Your task to perform on an android device: Go to wifi settings Image 0: 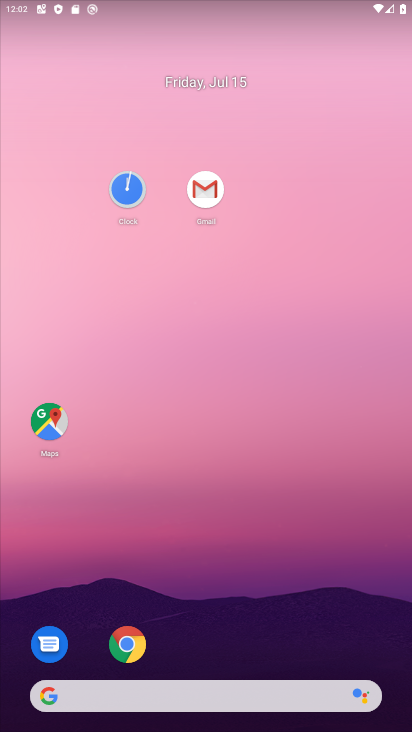
Step 0: drag from (288, 612) to (296, 215)
Your task to perform on an android device: Go to wifi settings Image 1: 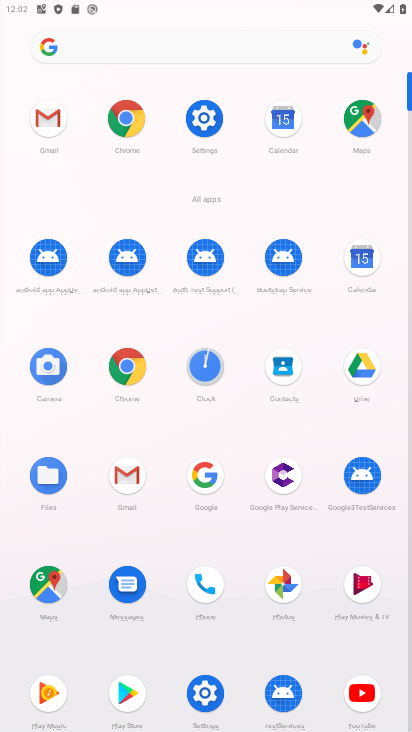
Step 1: click (209, 117)
Your task to perform on an android device: Go to wifi settings Image 2: 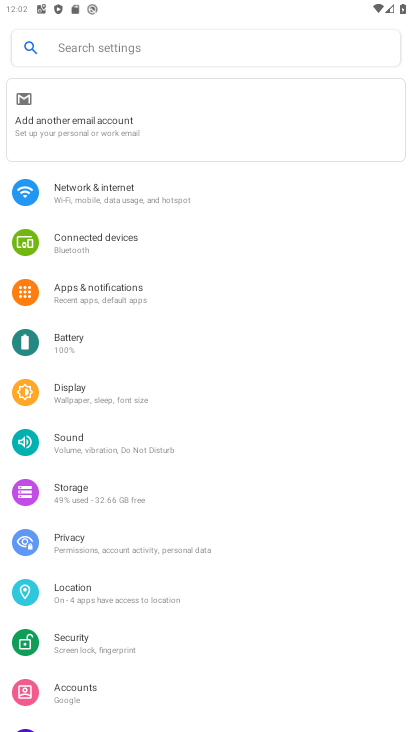
Step 2: click (165, 209)
Your task to perform on an android device: Go to wifi settings Image 3: 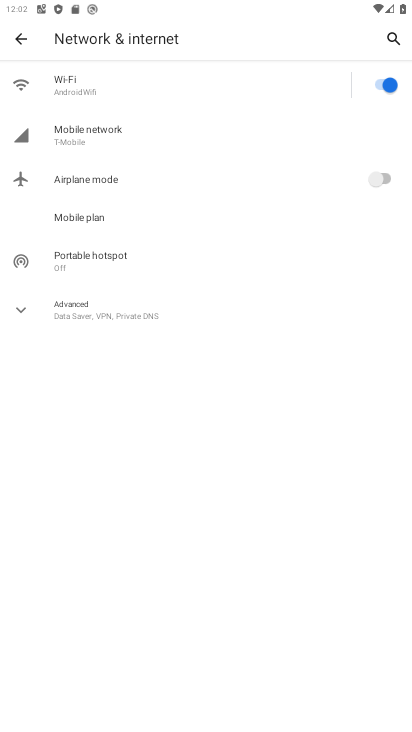
Step 3: click (153, 87)
Your task to perform on an android device: Go to wifi settings Image 4: 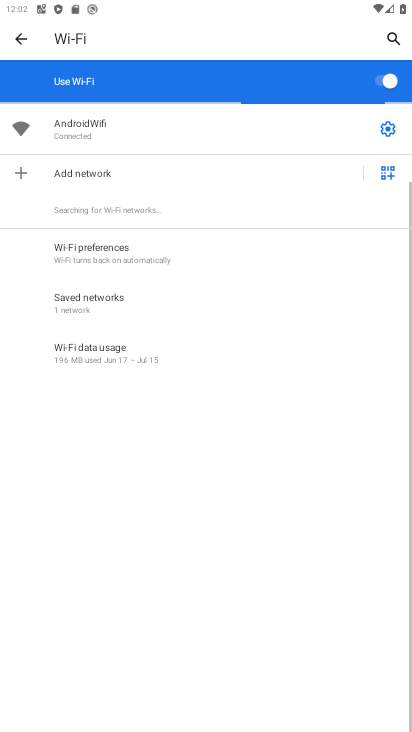
Step 4: click (388, 121)
Your task to perform on an android device: Go to wifi settings Image 5: 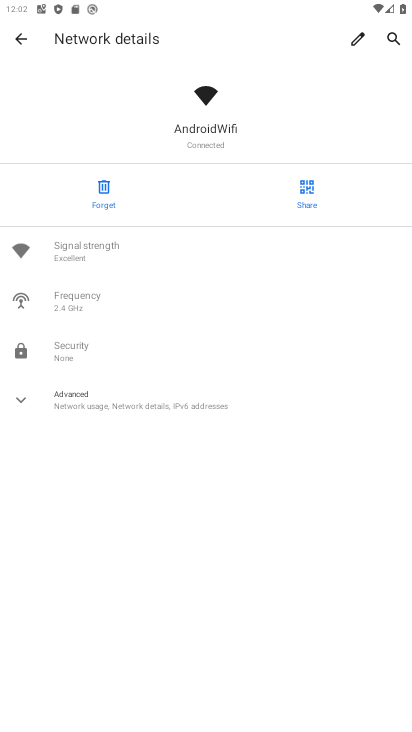
Step 5: task complete